Your task to perform on an android device: move a message to another label in the gmail app Image 0: 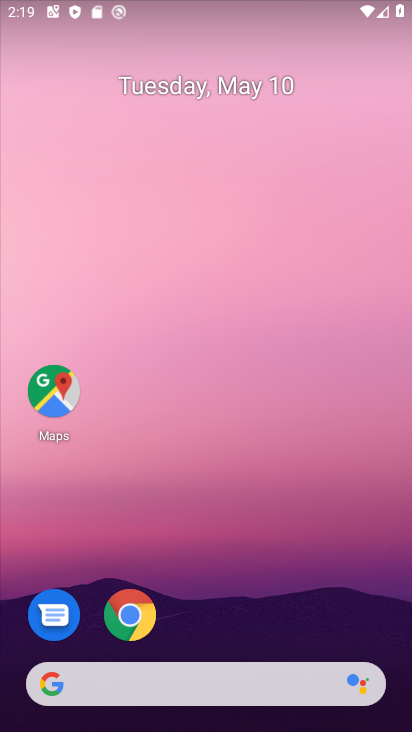
Step 0: drag from (213, 645) to (217, 95)
Your task to perform on an android device: move a message to another label in the gmail app Image 1: 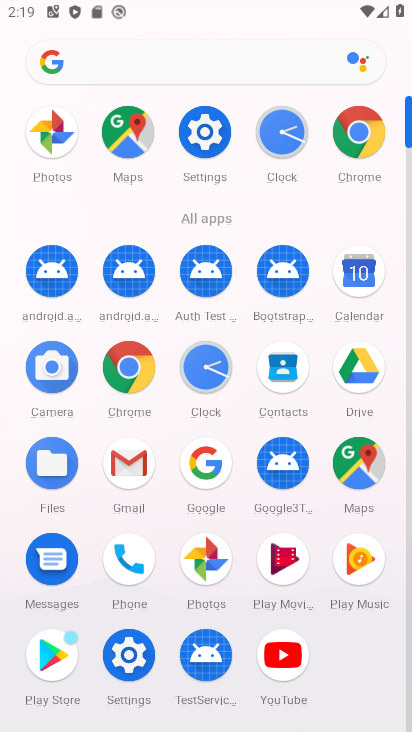
Step 1: click (133, 460)
Your task to perform on an android device: move a message to another label in the gmail app Image 2: 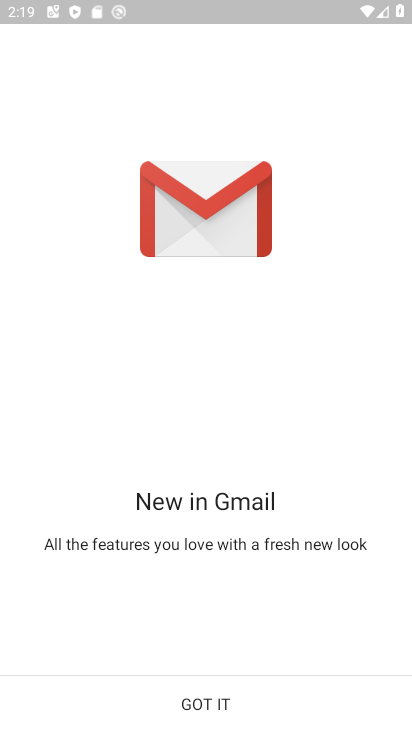
Step 2: click (194, 700)
Your task to perform on an android device: move a message to another label in the gmail app Image 3: 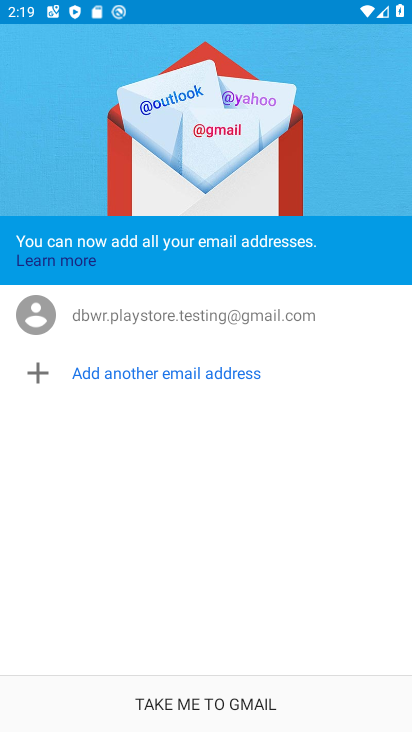
Step 3: click (194, 700)
Your task to perform on an android device: move a message to another label in the gmail app Image 4: 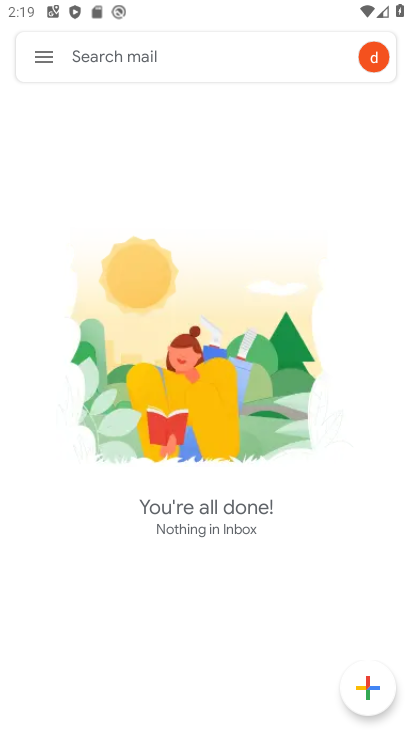
Step 4: click (48, 57)
Your task to perform on an android device: move a message to another label in the gmail app Image 5: 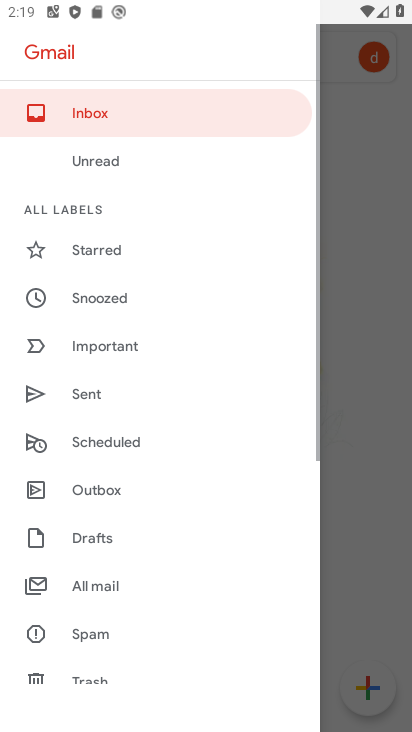
Step 5: click (80, 105)
Your task to perform on an android device: move a message to another label in the gmail app Image 6: 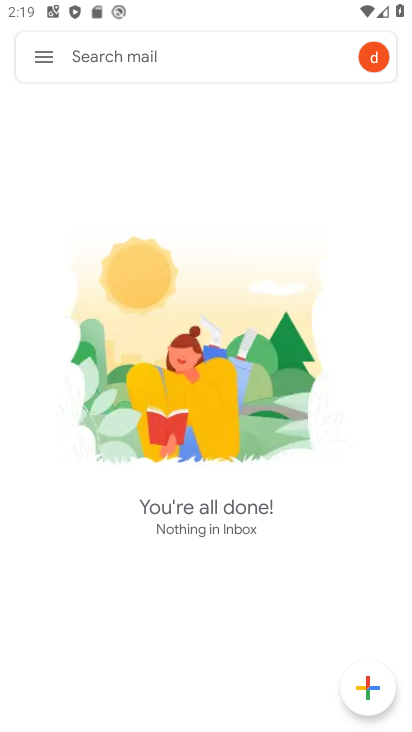
Step 6: task complete